Your task to perform on an android device: add a contact in the contacts app Image 0: 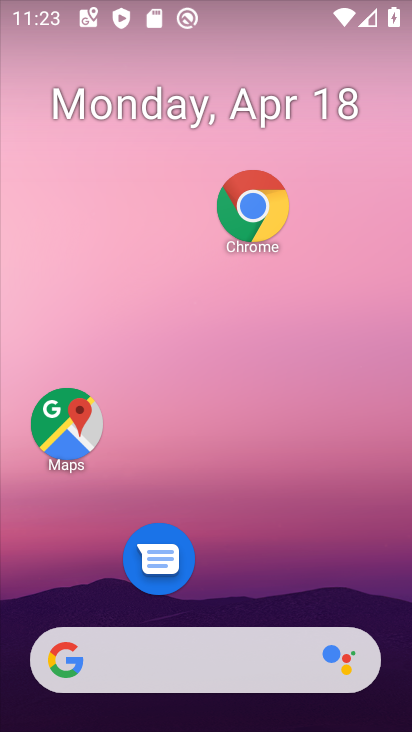
Step 0: drag from (298, 630) to (353, 149)
Your task to perform on an android device: add a contact in the contacts app Image 1: 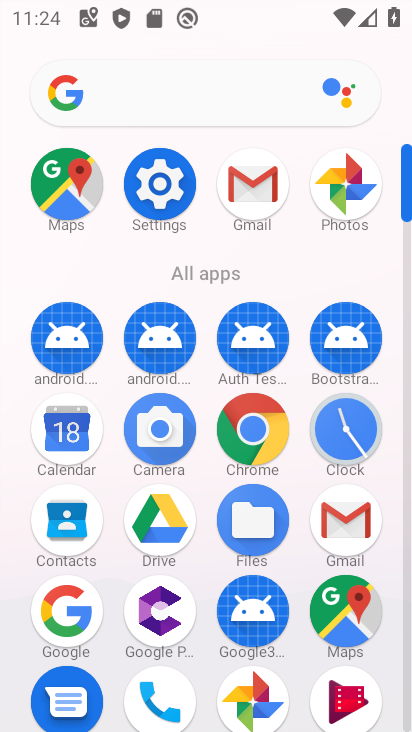
Step 1: click (58, 523)
Your task to perform on an android device: add a contact in the contacts app Image 2: 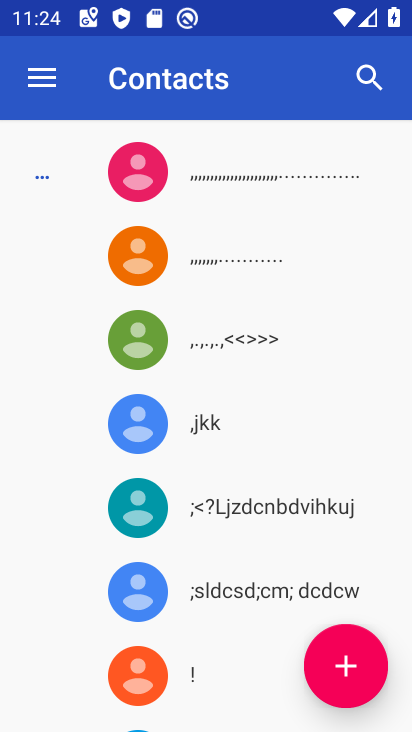
Step 2: click (368, 673)
Your task to perform on an android device: add a contact in the contacts app Image 3: 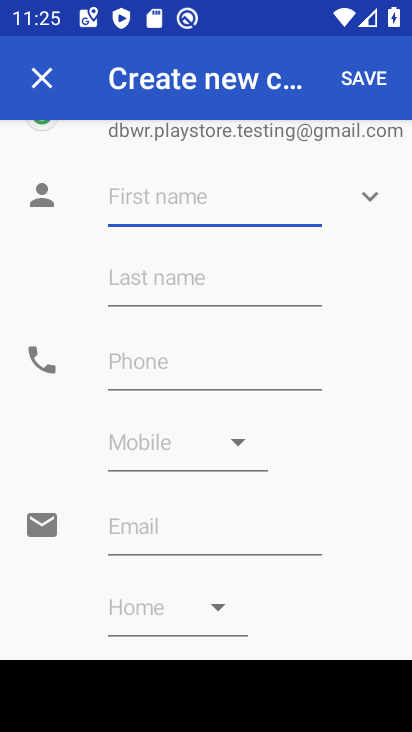
Step 3: type "ramesh"
Your task to perform on an android device: add a contact in the contacts app Image 4: 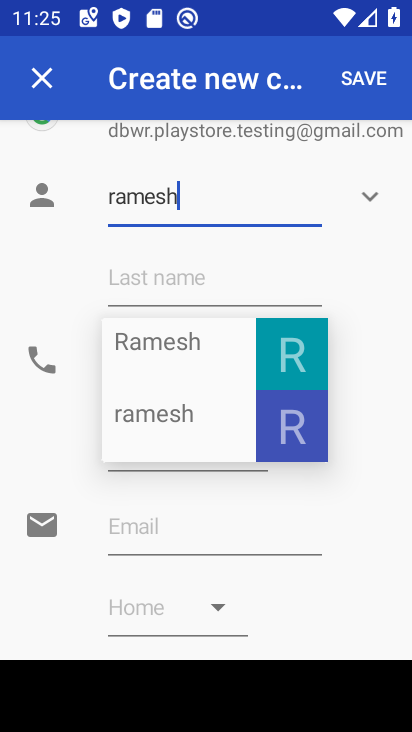
Step 4: type "2"
Your task to perform on an android device: add a contact in the contacts app Image 5: 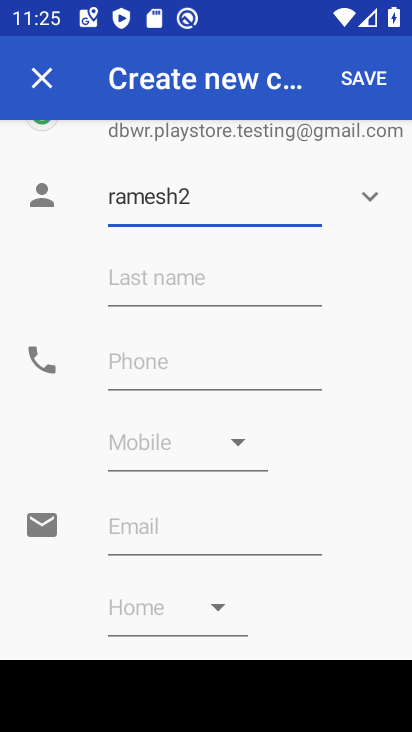
Step 5: click (300, 366)
Your task to perform on an android device: add a contact in the contacts app Image 6: 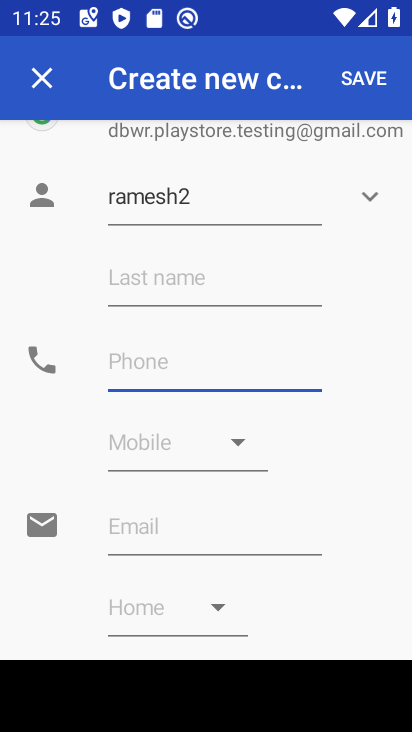
Step 6: type "98978667777"
Your task to perform on an android device: add a contact in the contacts app Image 7: 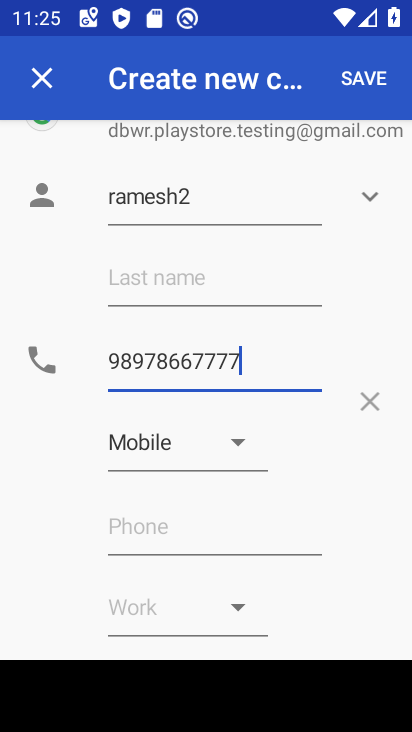
Step 7: click (352, 82)
Your task to perform on an android device: add a contact in the contacts app Image 8: 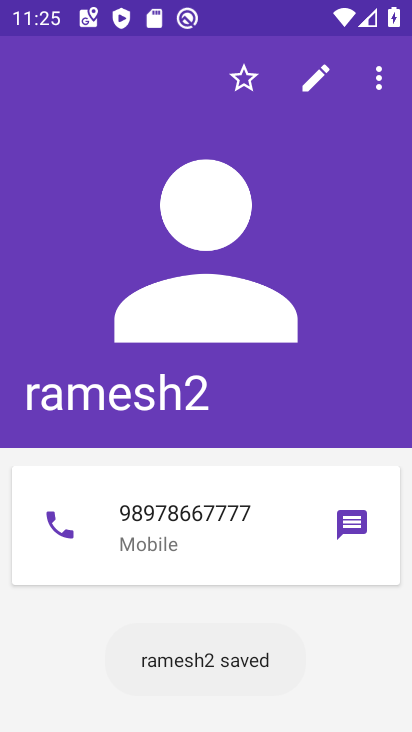
Step 8: task complete